Your task to perform on an android device: Search for Mexican restaurants on Maps Image 0: 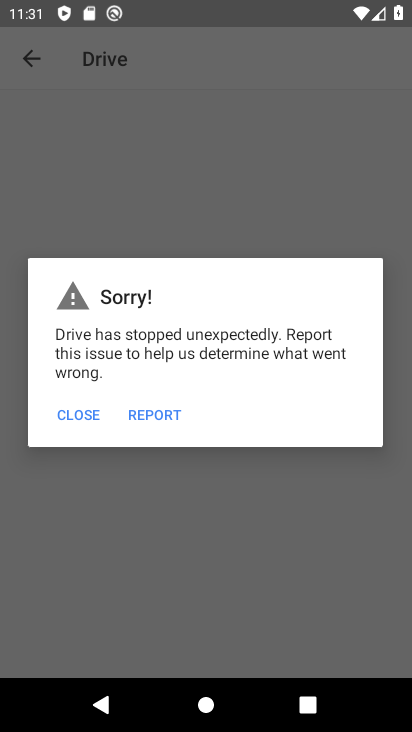
Step 0: press home button
Your task to perform on an android device: Search for Mexican restaurants on Maps Image 1: 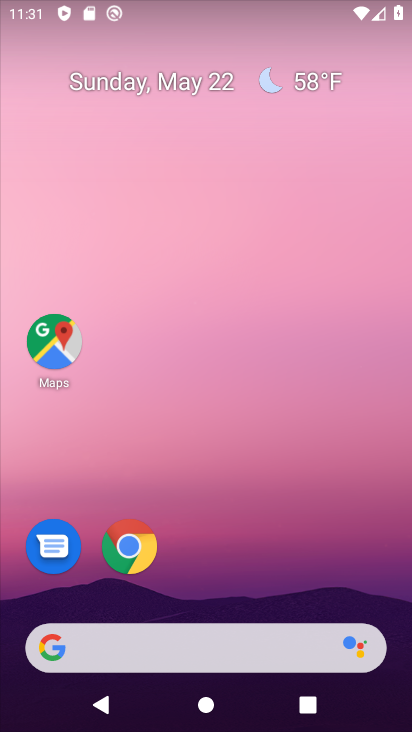
Step 1: click (53, 342)
Your task to perform on an android device: Search for Mexican restaurants on Maps Image 2: 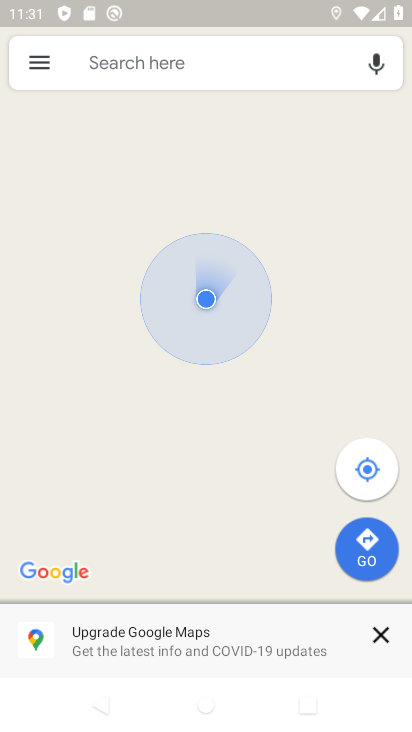
Step 2: click (150, 53)
Your task to perform on an android device: Search for Mexican restaurants on Maps Image 3: 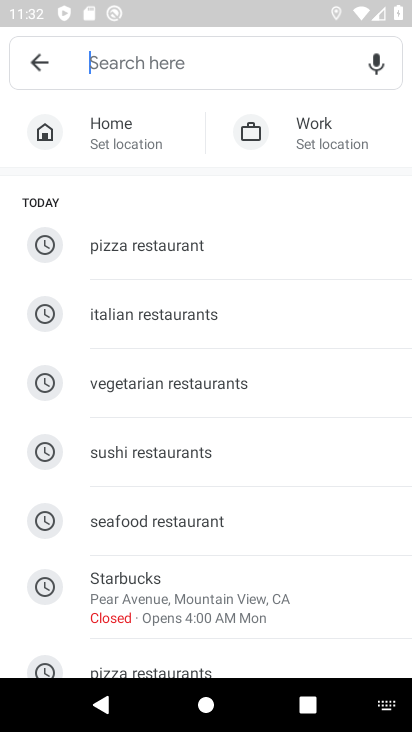
Step 3: type "mexican restaurants"
Your task to perform on an android device: Search for Mexican restaurants on Maps Image 4: 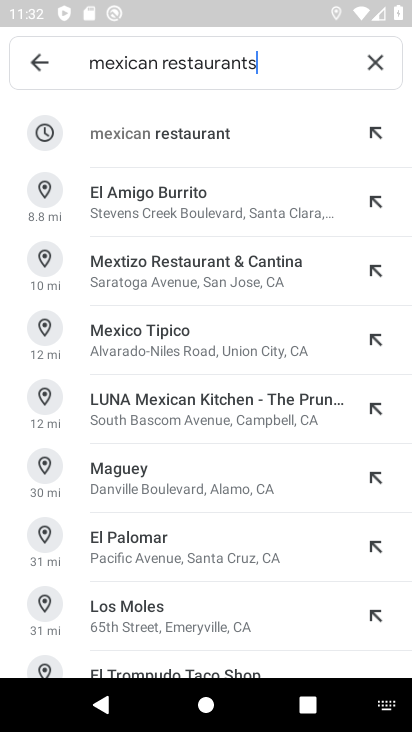
Step 4: click (180, 141)
Your task to perform on an android device: Search for Mexican restaurants on Maps Image 5: 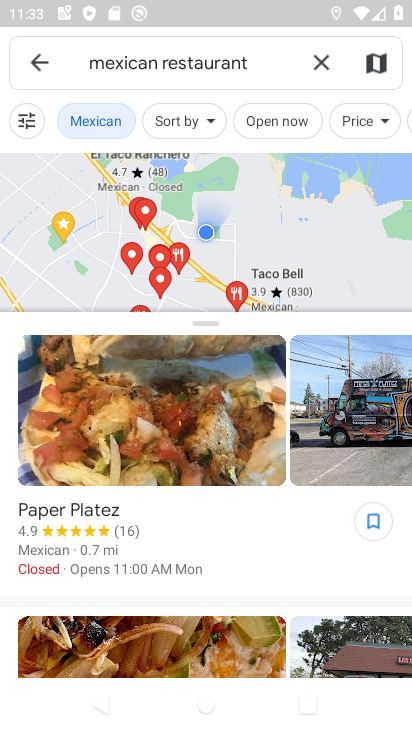
Step 5: task complete